Your task to perform on an android device: empty trash in the gmail app Image 0: 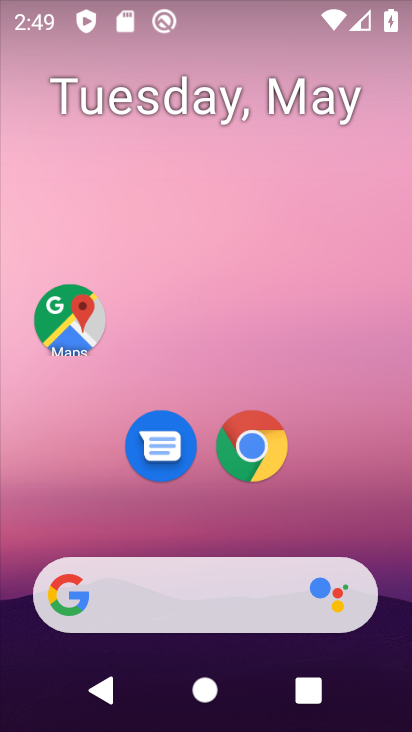
Step 0: drag from (347, 527) to (315, 194)
Your task to perform on an android device: empty trash in the gmail app Image 1: 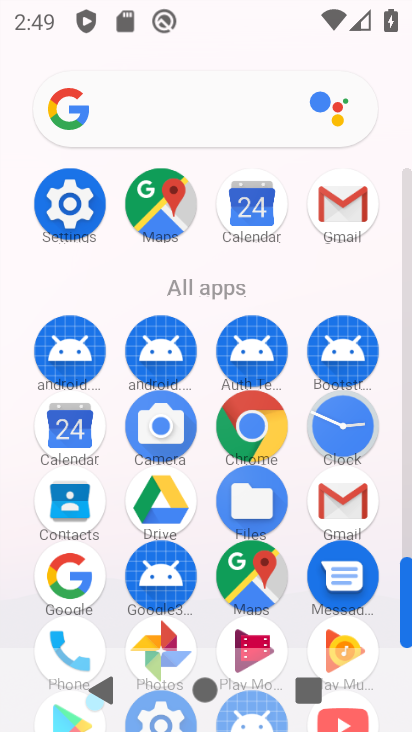
Step 1: click (341, 230)
Your task to perform on an android device: empty trash in the gmail app Image 2: 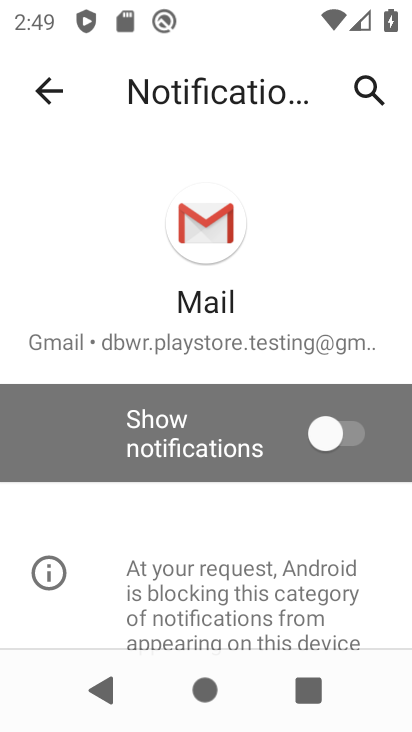
Step 2: click (36, 99)
Your task to perform on an android device: empty trash in the gmail app Image 3: 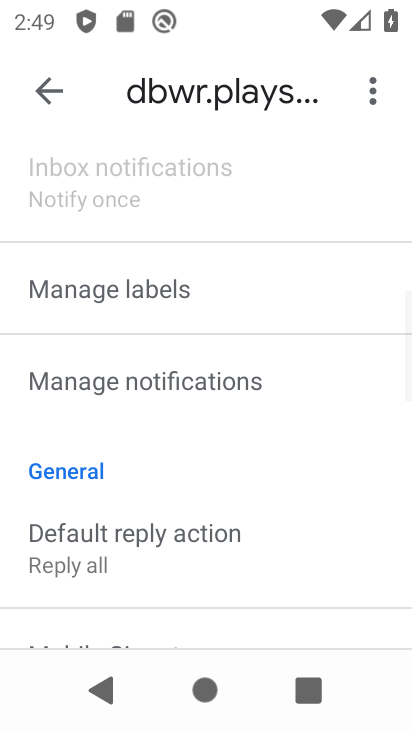
Step 3: click (36, 99)
Your task to perform on an android device: empty trash in the gmail app Image 4: 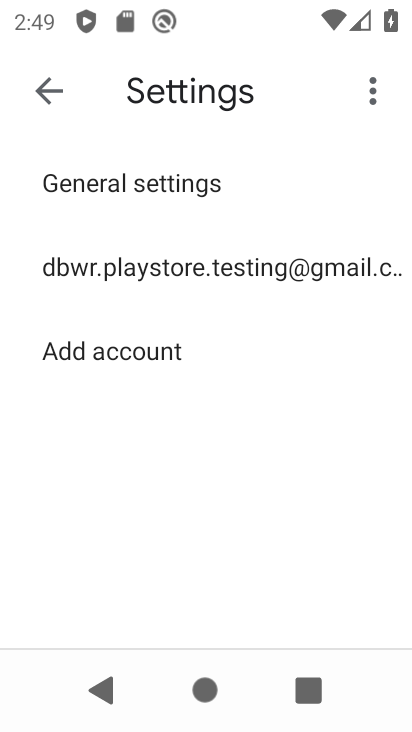
Step 4: click (58, 94)
Your task to perform on an android device: empty trash in the gmail app Image 5: 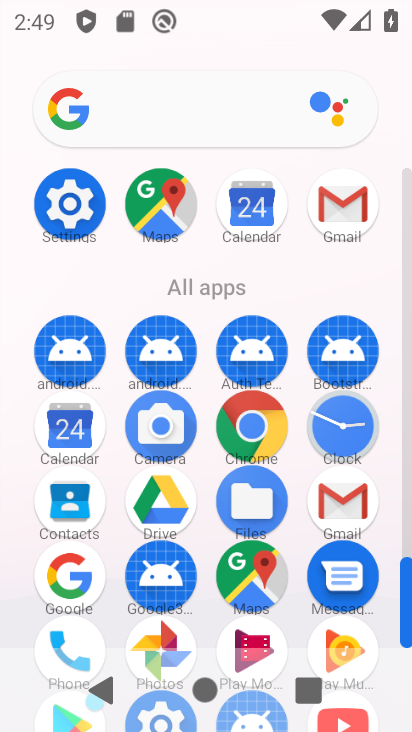
Step 5: click (329, 518)
Your task to perform on an android device: empty trash in the gmail app Image 6: 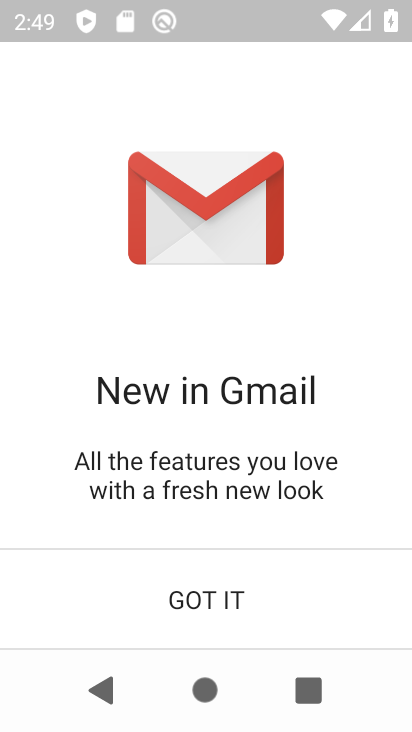
Step 6: click (206, 615)
Your task to perform on an android device: empty trash in the gmail app Image 7: 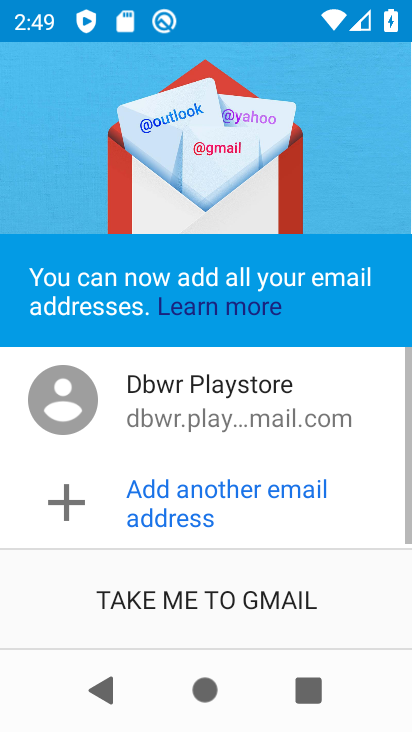
Step 7: click (206, 615)
Your task to perform on an android device: empty trash in the gmail app Image 8: 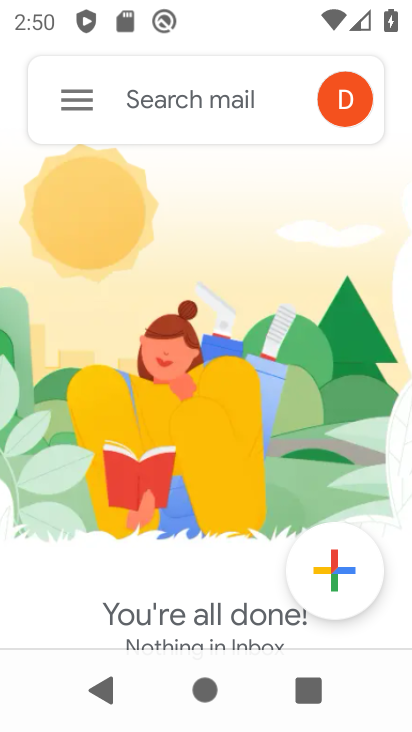
Step 8: click (48, 105)
Your task to perform on an android device: empty trash in the gmail app Image 9: 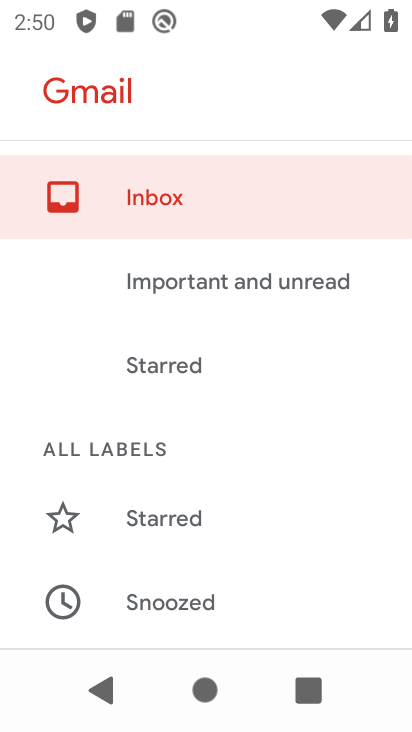
Step 9: drag from (228, 536) to (236, 178)
Your task to perform on an android device: empty trash in the gmail app Image 10: 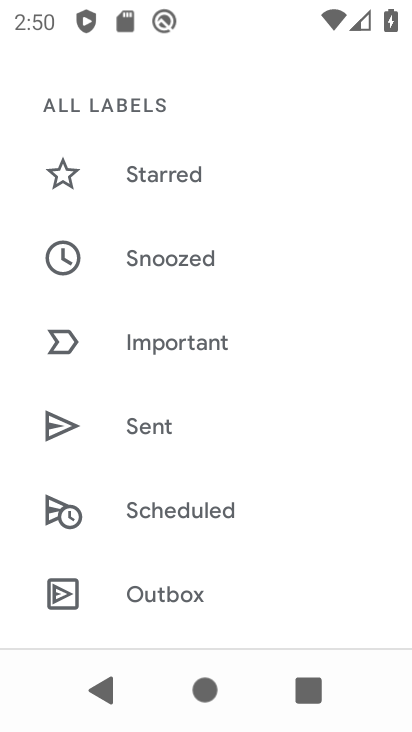
Step 10: drag from (243, 567) to (305, 49)
Your task to perform on an android device: empty trash in the gmail app Image 11: 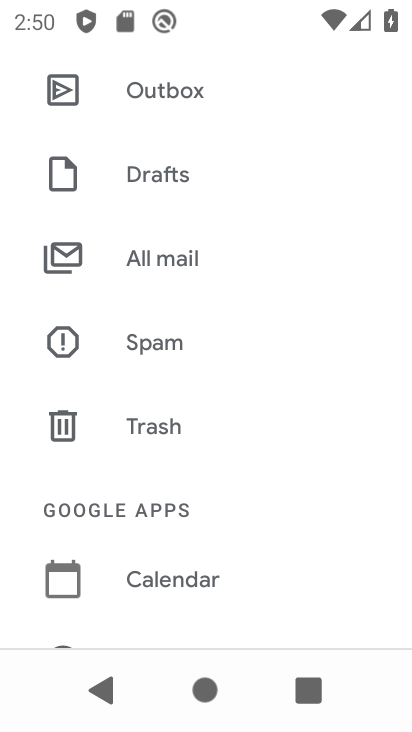
Step 11: click (122, 429)
Your task to perform on an android device: empty trash in the gmail app Image 12: 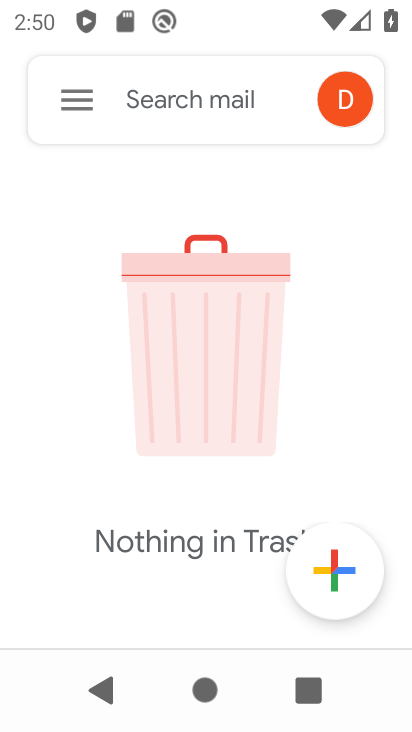
Step 12: task complete